Your task to perform on an android device: open app "Google Photos" (install if not already installed) Image 0: 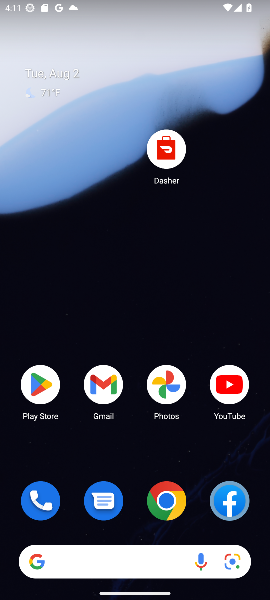
Step 0: click (167, 386)
Your task to perform on an android device: open app "Google Photos" (install if not already installed) Image 1: 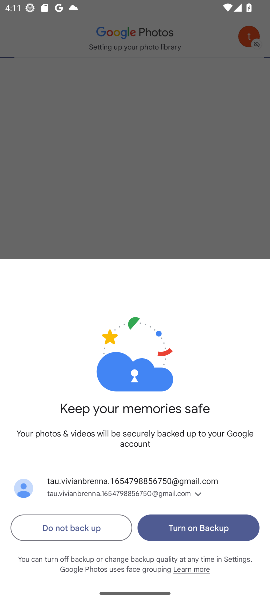
Step 1: task complete